Your task to perform on an android device: Go to display settings Image 0: 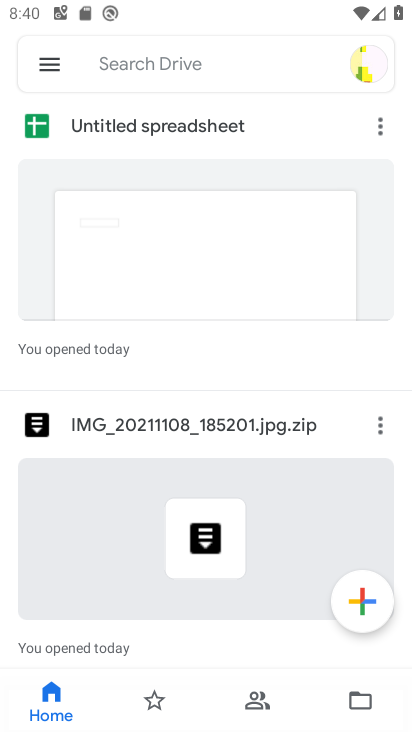
Step 0: press home button
Your task to perform on an android device: Go to display settings Image 1: 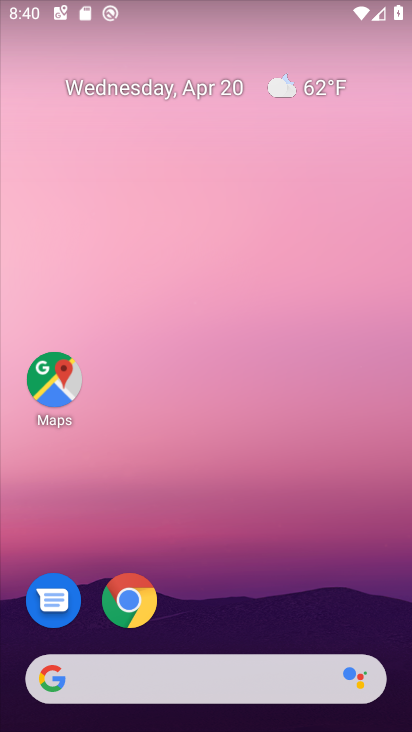
Step 1: drag from (249, 571) to (269, 29)
Your task to perform on an android device: Go to display settings Image 2: 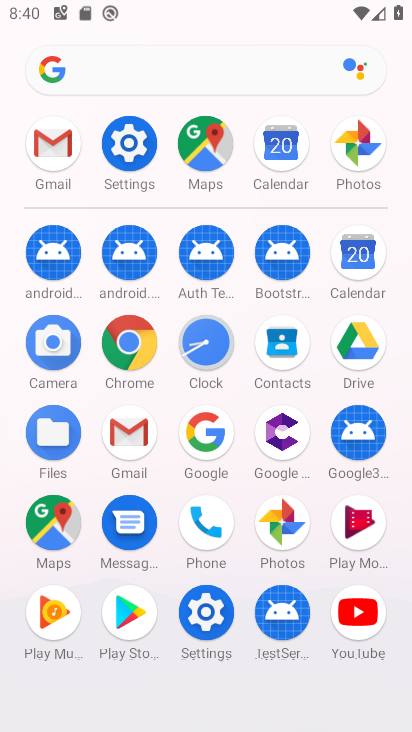
Step 2: click (135, 143)
Your task to perform on an android device: Go to display settings Image 3: 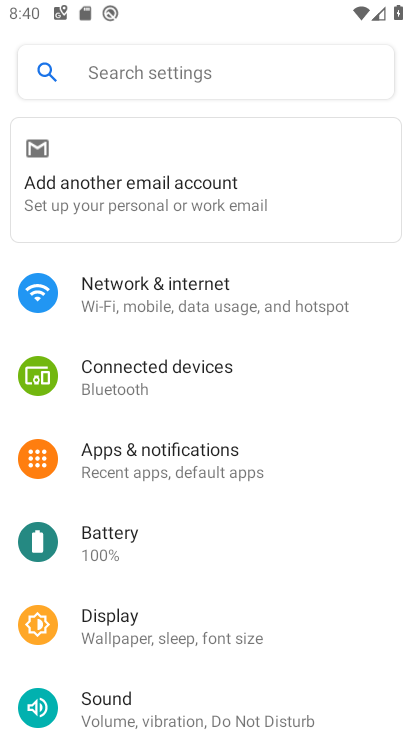
Step 3: click (188, 618)
Your task to perform on an android device: Go to display settings Image 4: 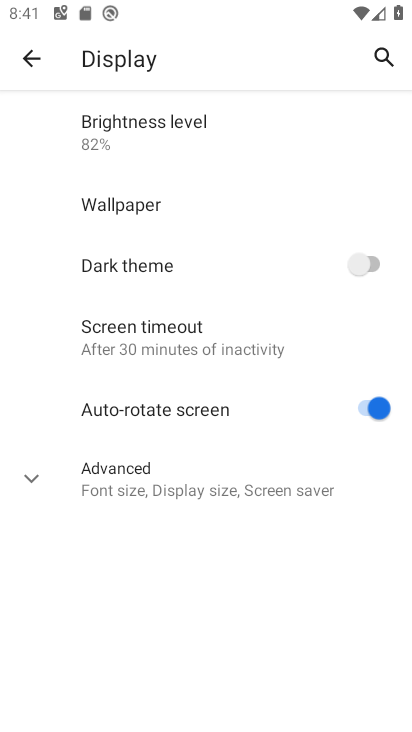
Step 4: task complete